Your task to perform on an android device: find snoozed emails in the gmail app Image 0: 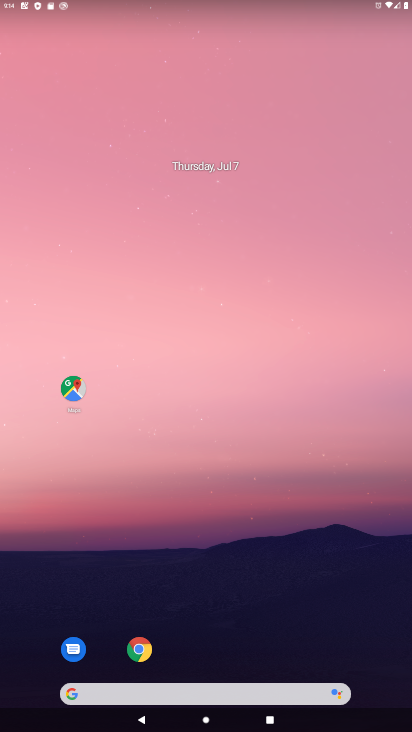
Step 0: drag from (294, 670) to (348, 25)
Your task to perform on an android device: find snoozed emails in the gmail app Image 1: 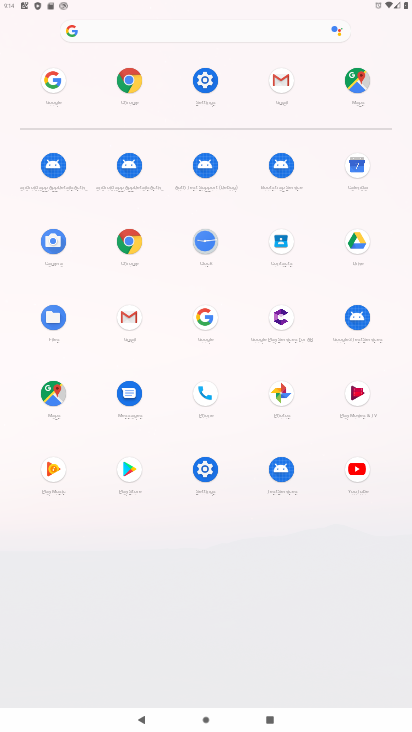
Step 1: click (127, 326)
Your task to perform on an android device: find snoozed emails in the gmail app Image 2: 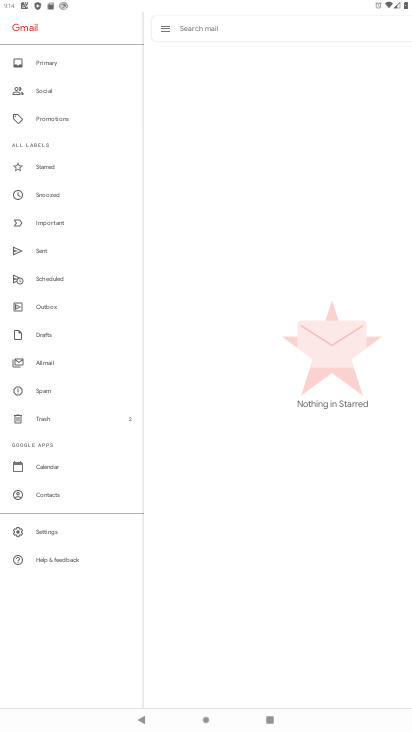
Step 2: click (38, 194)
Your task to perform on an android device: find snoozed emails in the gmail app Image 3: 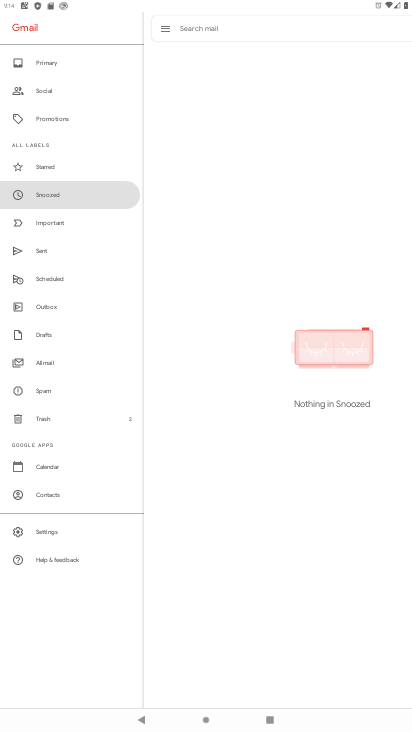
Step 3: task complete